Your task to perform on an android device: change notification settings in the gmail app Image 0: 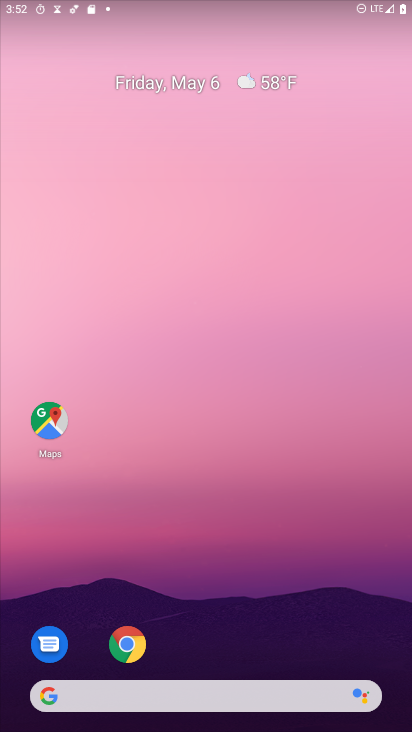
Step 0: drag from (213, 729) to (212, 173)
Your task to perform on an android device: change notification settings in the gmail app Image 1: 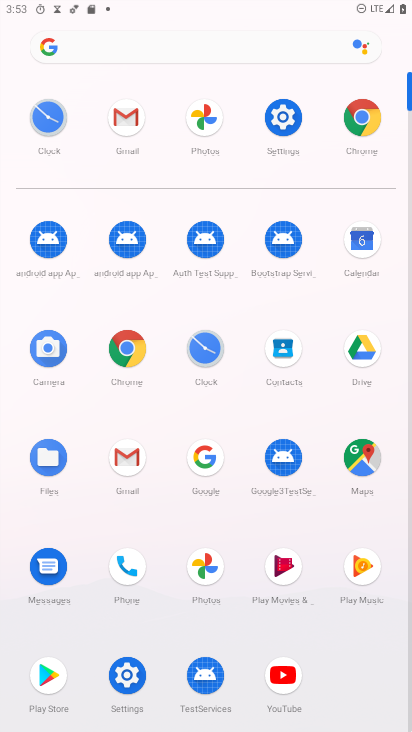
Step 1: click (126, 125)
Your task to perform on an android device: change notification settings in the gmail app Image 2: 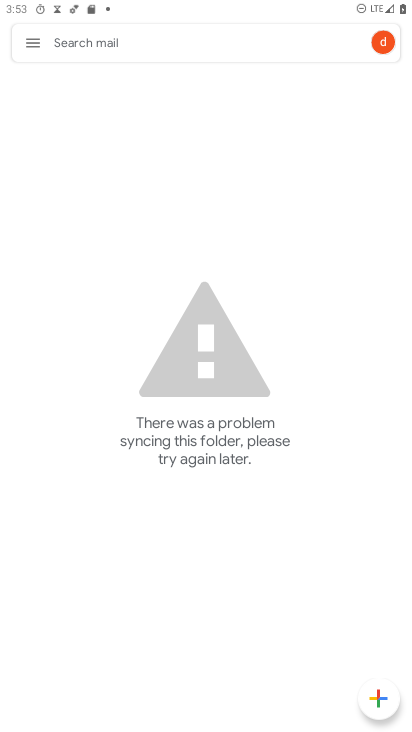
Step 2: click (33, 43)
Your task to perform on an android device: change notification settings in the gmail app Image 3: 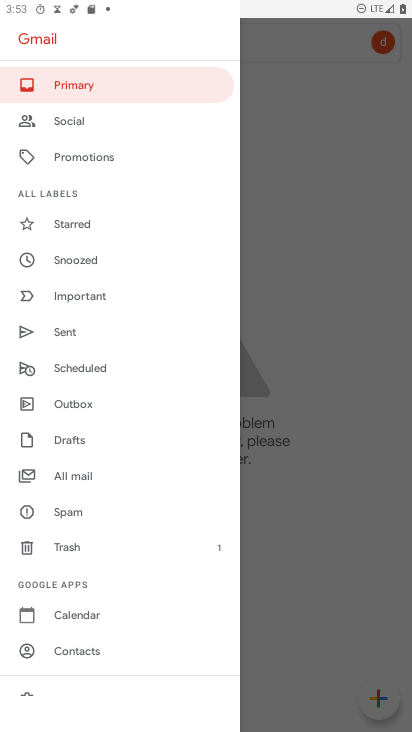
Step 3: drag from (61, 654) to (64, 435)
Your task to perform on an android device: change notification settings in the gmail app Image 4: 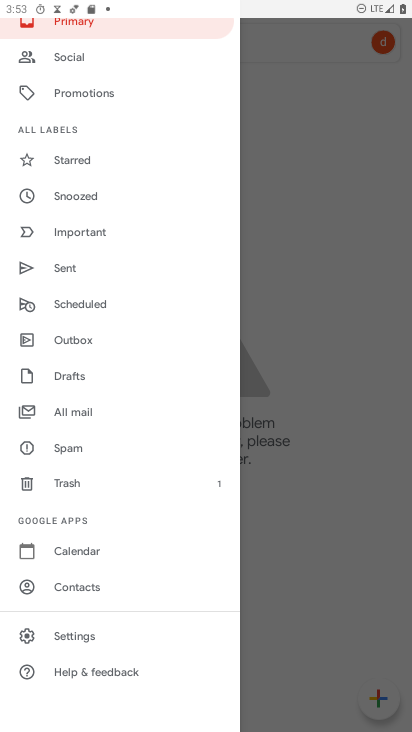
Step 4: click (65, 632)
Your task to perform on an android device: change notification settings in the gmail app Image 5: 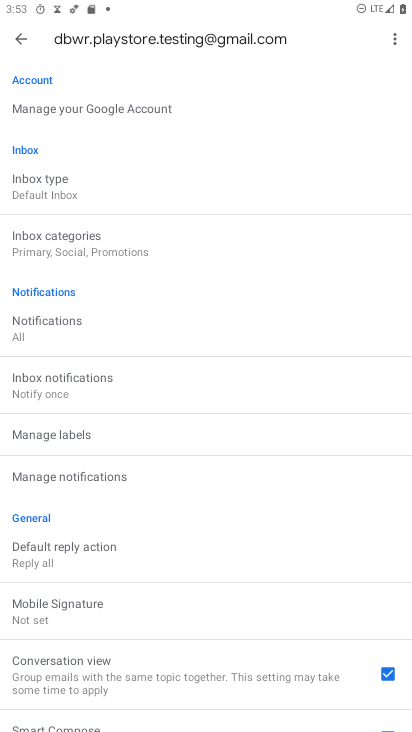
Step 5: click (45, 317)
Your task to perform on an android device: change notification settings in the gmail app Image 6: 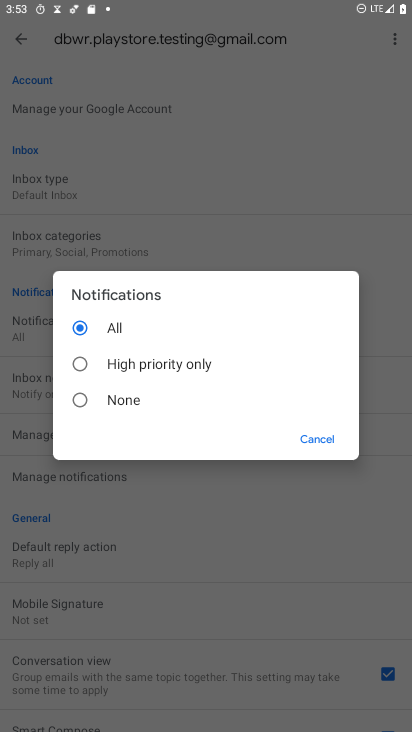
Step 6: click (79, 399)
Your task to perform on an android device: change notification settings in the gmail app Image 7: 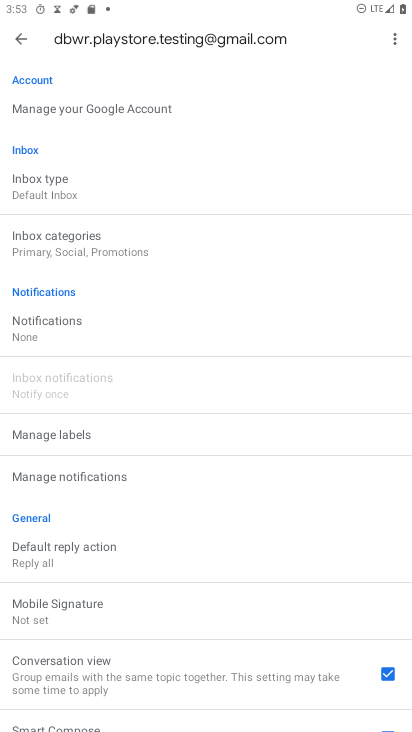
Step 7: task complete